Your task to perform on an android device: Open the web browser Image 0: 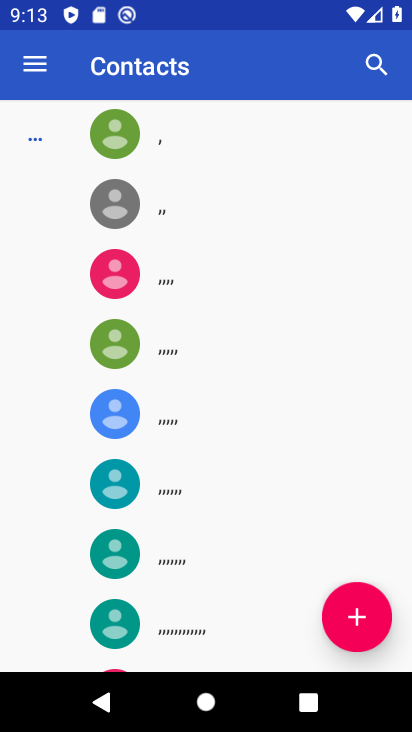
Step 0: press home button
Your task to perform on an android device: Open the web browser Image 1: 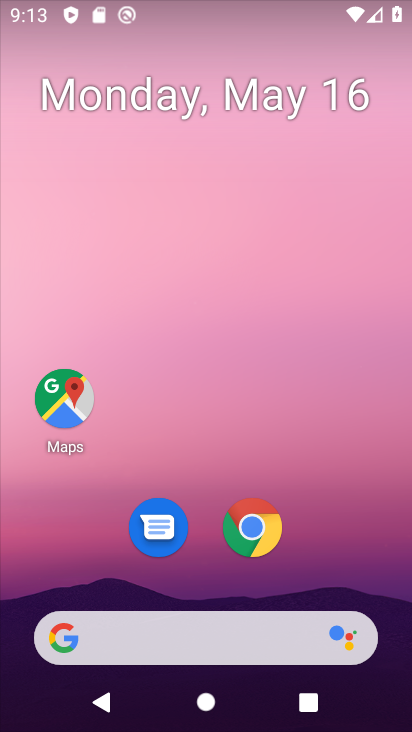
Step 1: click (252, 522)
Your task to perform on an android device: Open the web browser Image 2: 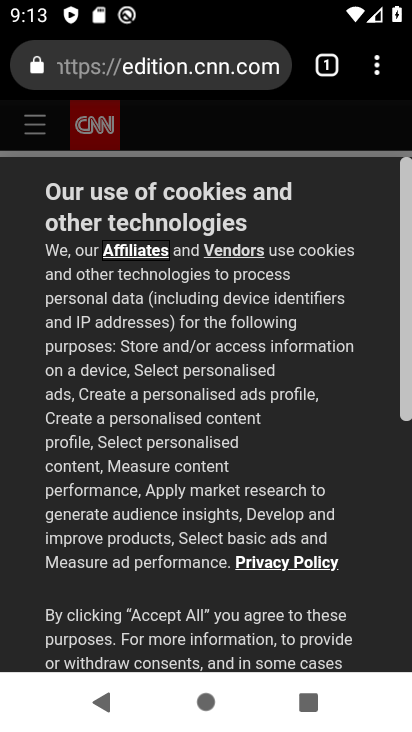
Step 2: task complete